Your task to perform on an android device: Open Android settings Image 0: 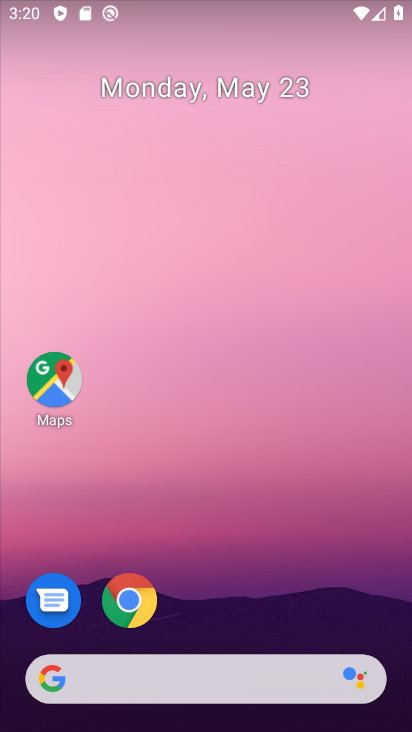
Step 0: drag from (317, 474) to (367, 4)
Your task to perform on an android device: Open Android settings Image 1: 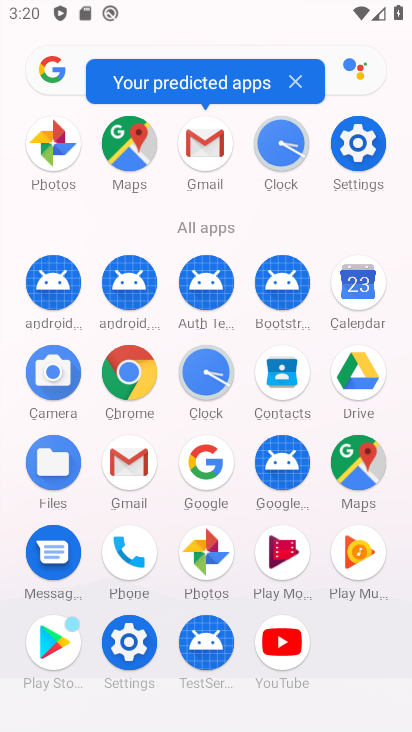
Step 1: click (355, 152)
Your task to perform on an android device: Open Android settings Image 2: 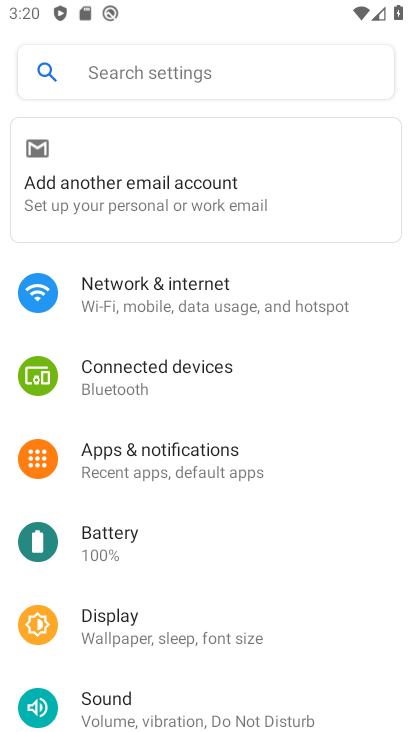
Step 2: task complete